Your task to perform on an android device: Open the Play Movies app and select the watchlist tab. Image 0: 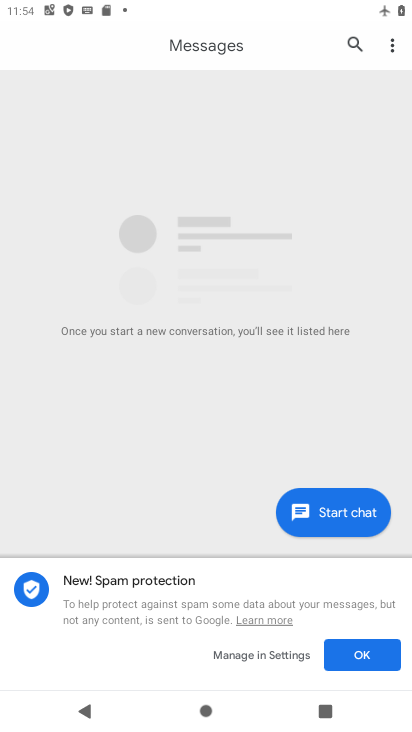
Step 0: press home button
Your task to perform on an android device: Open the Play Movies app and select the watchlist tab. Image 1: 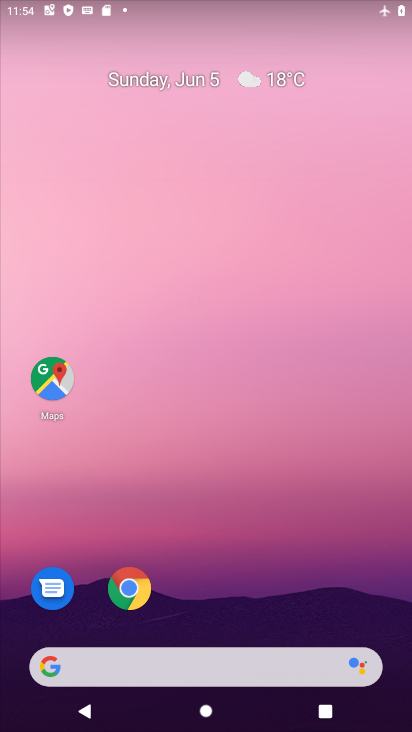
Step 1: drag from (256, 620) to (226, 326)
Your task to perform on an android device: Open the Play Movies app and select the watchlist tab. Image 2: 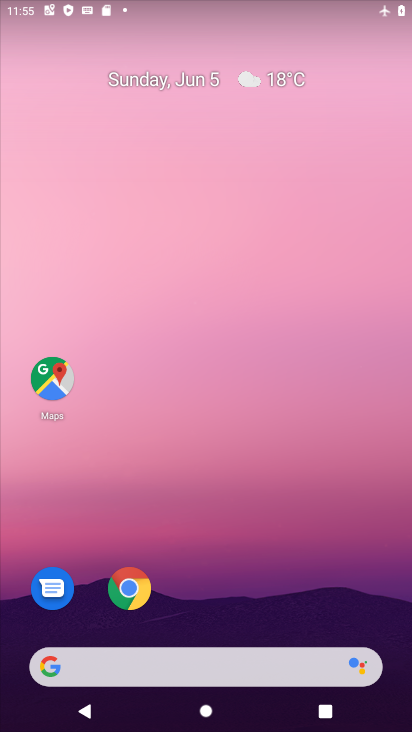
Step 2: drag from (238, 628) to (193, 241)
Your task to perform on an android device: Open the Play Movies app and select the watchlist tab. Image 3: 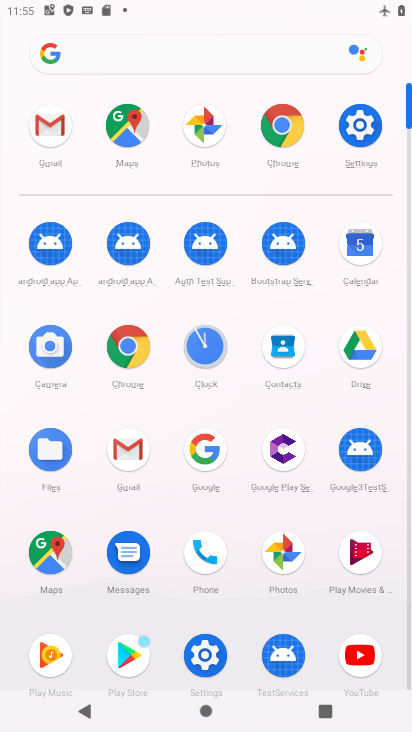
Step 3: click (364, 562)
Your task to perform on an android device: Open the Play Movies app and select the watchlist tab. Image 4: 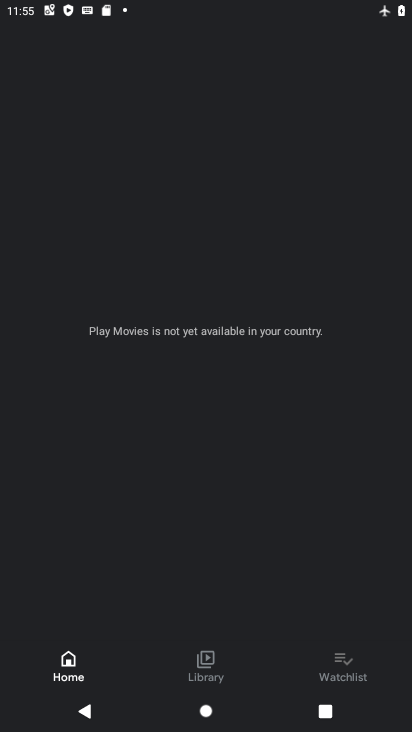
Step 4: click (351, 660)
Your task to perform on an android device: Open the Play Movies app and select the watchlist tab. Image 5: 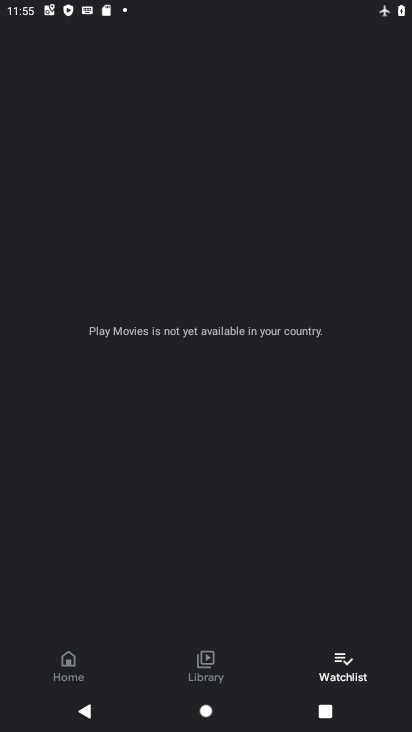
Step 5: task complete